Your task to perform on an android device: turn smart compose on in the gmail app Image 0: 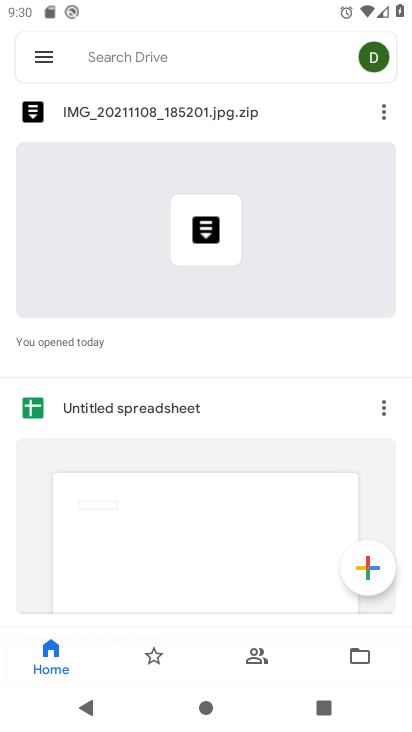
Step 0: press home button
Your task to perform on an android device: turn smart compose on in the gmail app Image 1: 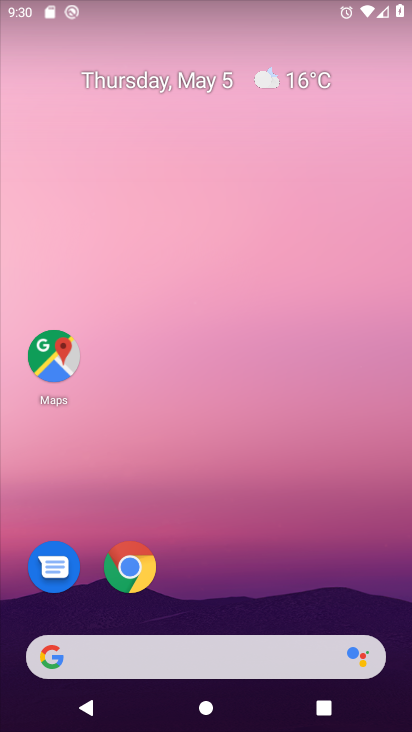
Step 1: drag from (234, 503) to (262, 14)
Your task to perform on an android device: turn smart compose on in the gmail app Image 2: 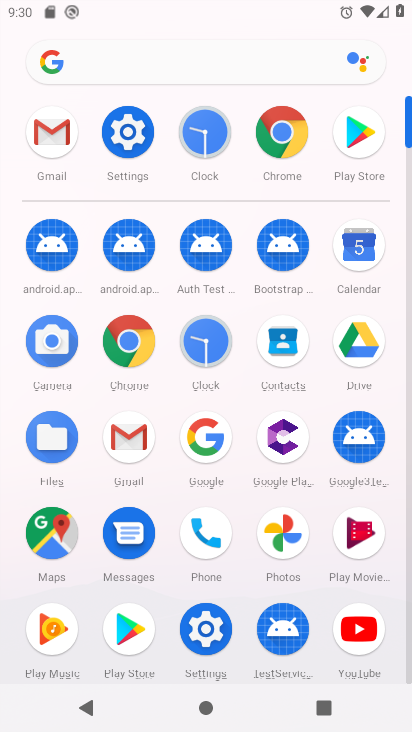
Step 2: click (41, 134)
Your task to perform on an android device: turn smart compose on in the gmail app Image 3: 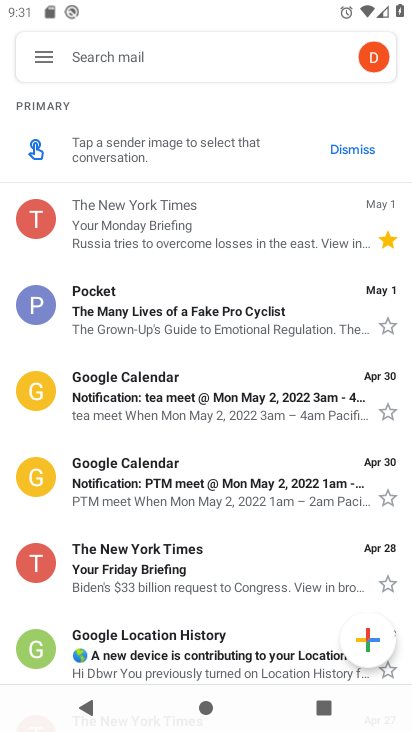
Step 3: click (45, 54)
Your task to perform on an android device: turn smart compose on in the gmail app Image 4: 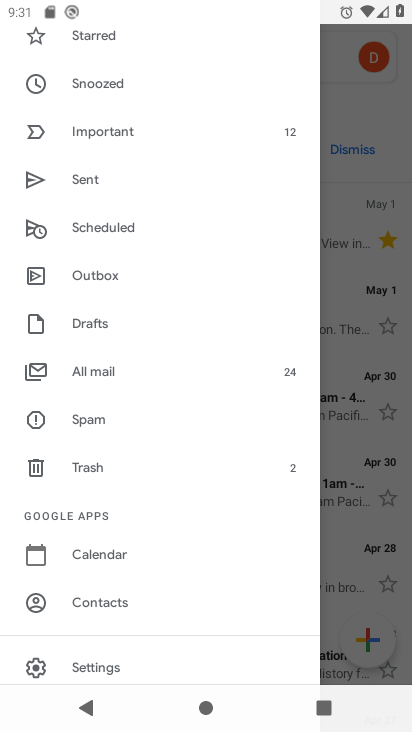
Step 4: drag from (181, 496) to (172, 265)
Your task to perform on an android device: turn smart compose on in the gmail app Image 5: 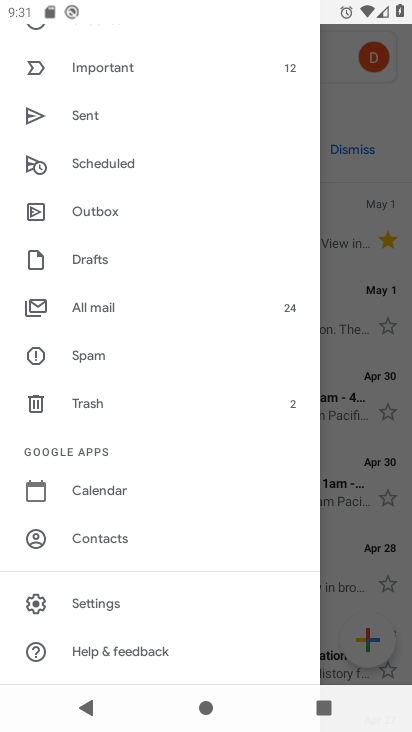
Step 5: click (93, 600)
Your task to perform on an android device: turn smart compose on in the gmail app Image 6: 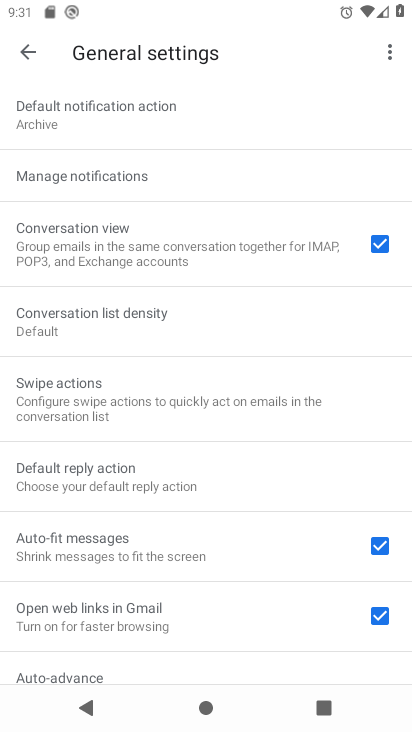
Step 6: drag from (214, 610) to (250, 176)
Your task to perform on an android device: turn smart compose on in the gmail app Image 7: 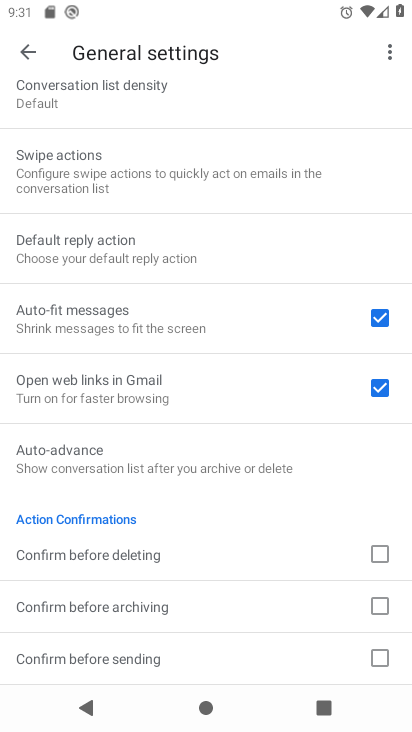
Step 7: drag from (205, 200) to (221, 607)
Your task to perform on an android device: turn smart compose on in the gmail app Image 8: 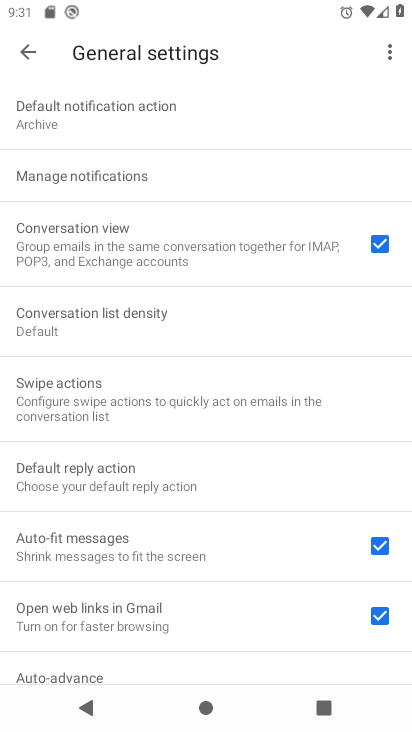
Step 8: drag from (202, 478) to (230, 52)
Your task to perform on an android device: turn smart compose on in the gmail app Image 9: 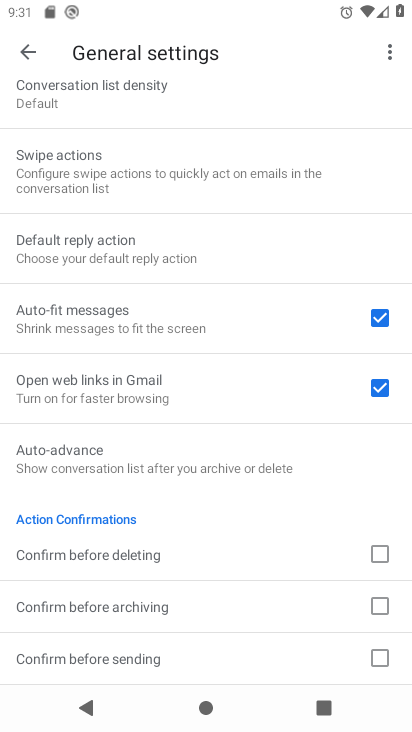
Step 9: click (29, 51)
Your task to perform on an android device: turn smart compose on in the gmail app Image 10: 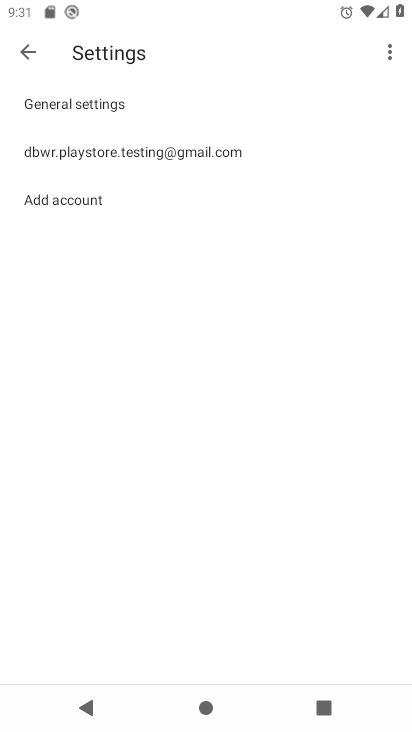
Step 10: click (89, 149)
Your task to perform on an android device: turn smart compose on in the gmail app Image 11: 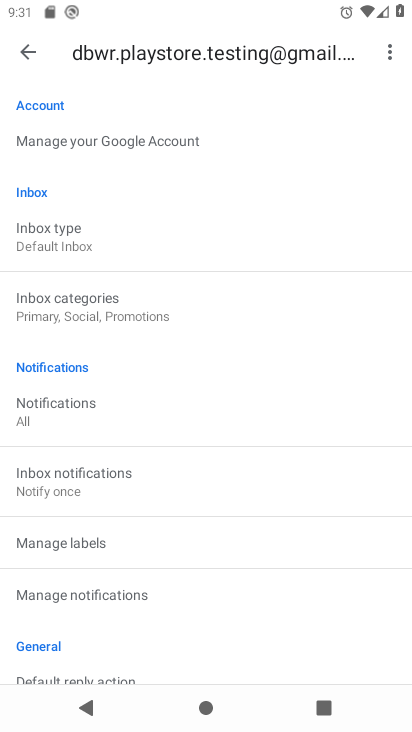
Step 11: task complete